Your task to perform on an android device: delete the emails in spam in the gmail app Image 0: 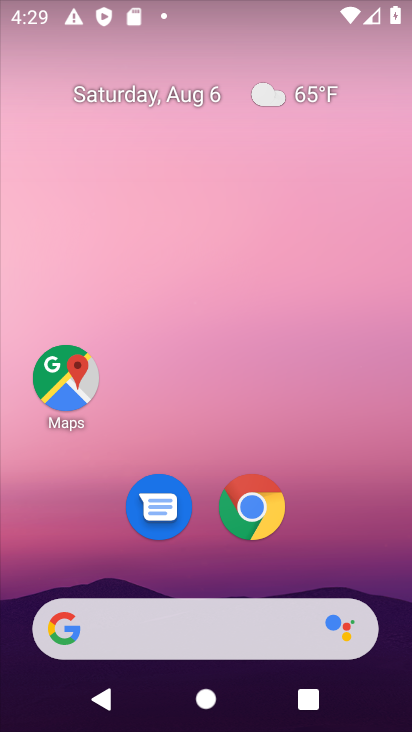
Step 0: drag from (234, 383) to (233, 175)
Your task to perform on an android device: delete the emails in spam in the gmail app Image 1: 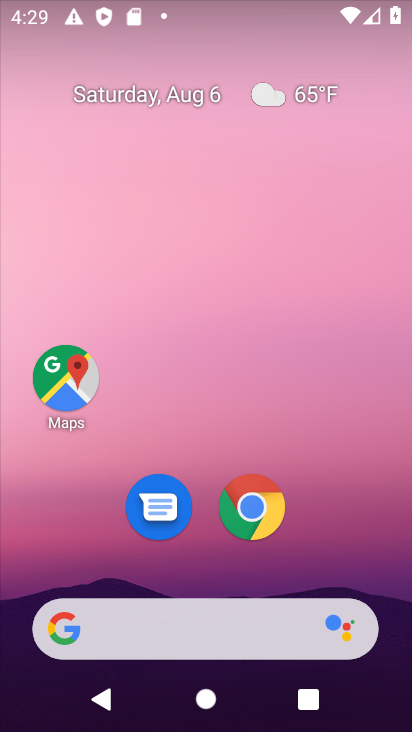
Step 1: drag from (195, 454) to (168, 118)
Your task to perform on an android device: delete the emails in spam in the gmail app Image 2: 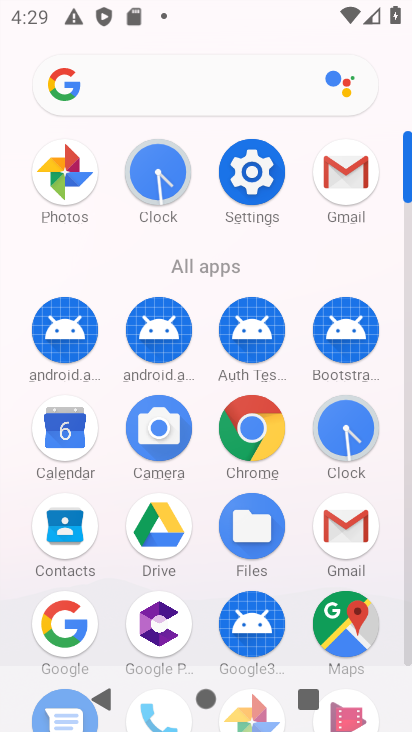
Step 2: click (352, 190)
Your task to perform on an android device: delete the emails in spam in the gmail app Image 3: 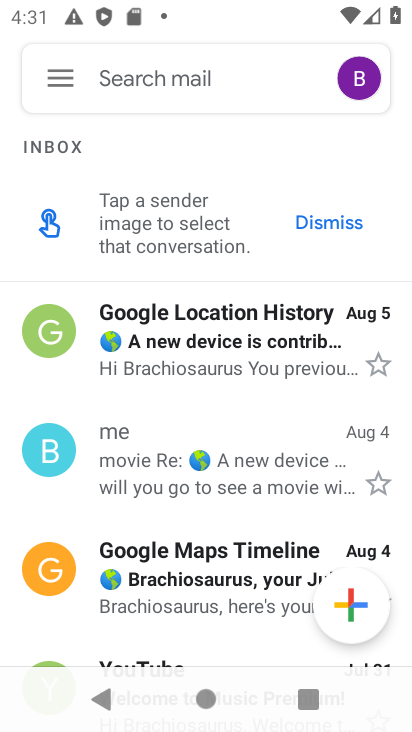
Step 3: press home button
Your task to perform on an android device: delete the emails in spam in the gmail app Image 4: 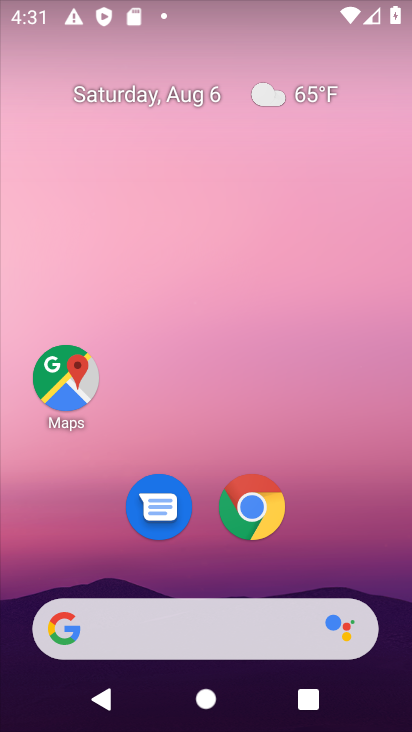
Step 4: drag from (213, 410) to (253, 186)
Your task to perform on an android device: delete the emails in spam in the gmail app Image 5: 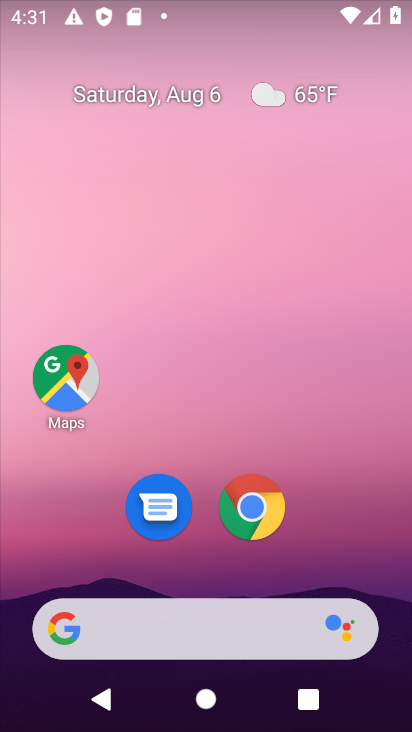
Step 5: drag from (247, 424) to (260, 159)
Your task to perform on an android device: delete the emails in spam in the gmail app Image 6: 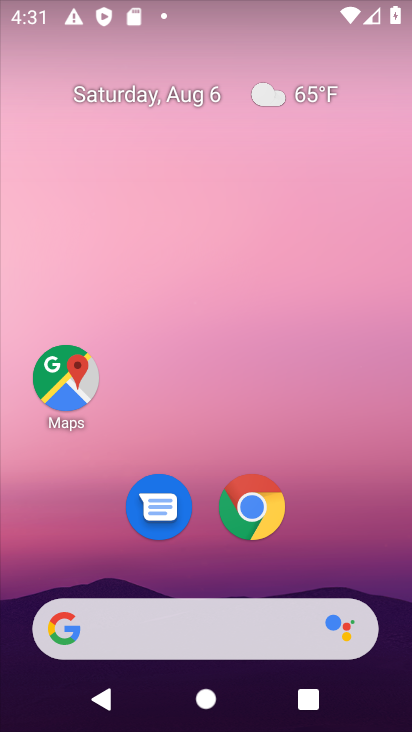
Step 6: drag from (199, 461) to (232, 110)
Your task to perform on an android device: delete the emails in spam in the gmail app Image 7: 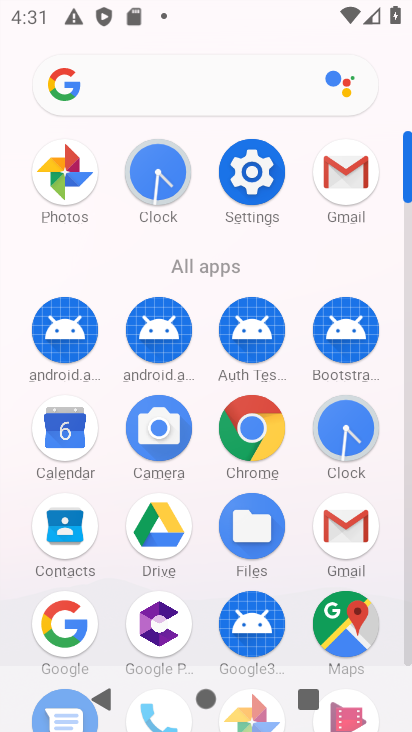
Step 7: click (347, 178)
Your task to perform on an android device: delete the emails in spam in the gmail app Image 8: 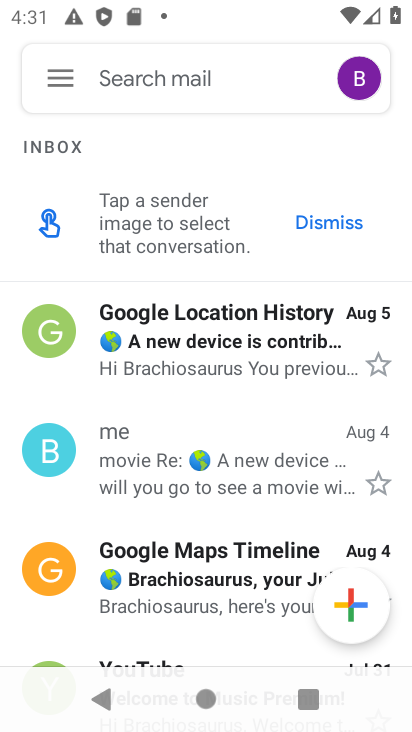
Step 8: click (65, 74)
Your task to perform on an android device: delete the emails in spam in the gmail app Image 9: 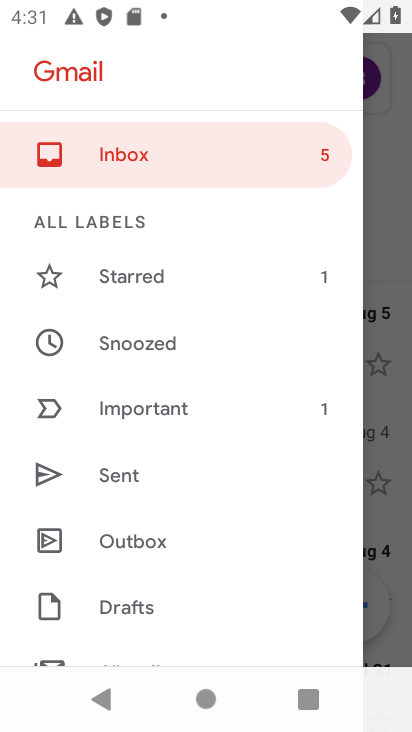
Step 9: drag from (173, 594) to (198, 278)
Your task to perform on an android device: delete the emails in spam in the gmail app Image 10: 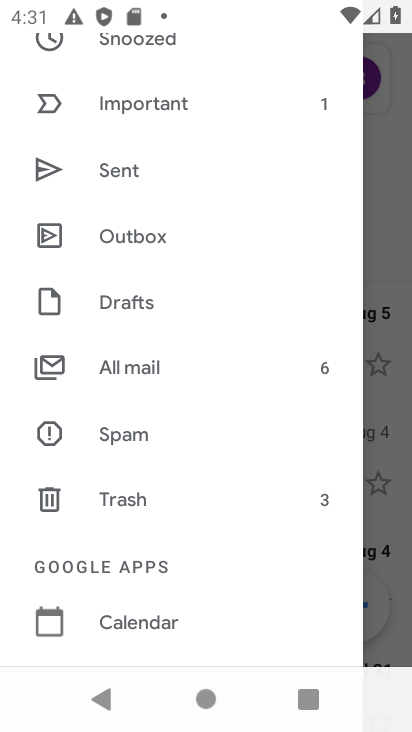
Step 10: click (122, 442)
Your task to perform on an android device: delete the emails in spam in the gmail app Image 11: 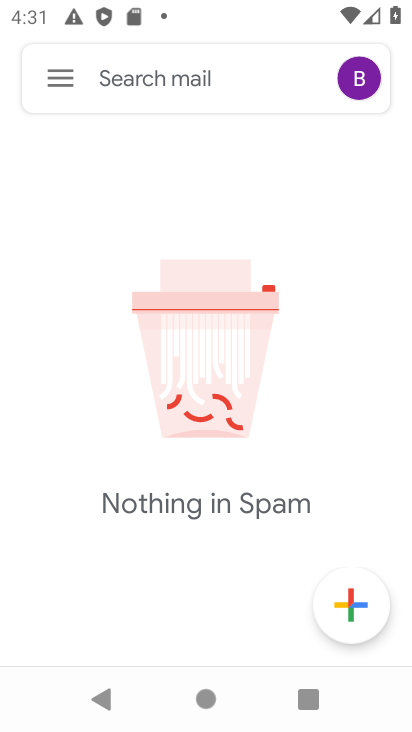
Step 11: task complete